Your task to perform on an android device: Show me recent news Image 0: 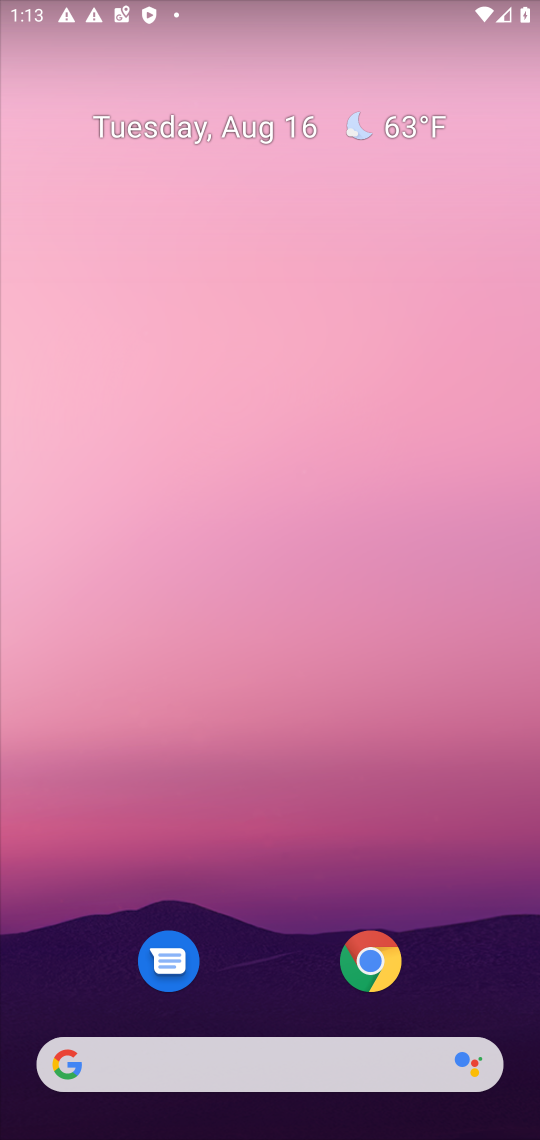
Step 0: drag from (484, 978) to (251, 96)
Your task to perform on an android device: Show me recent news Image 1: 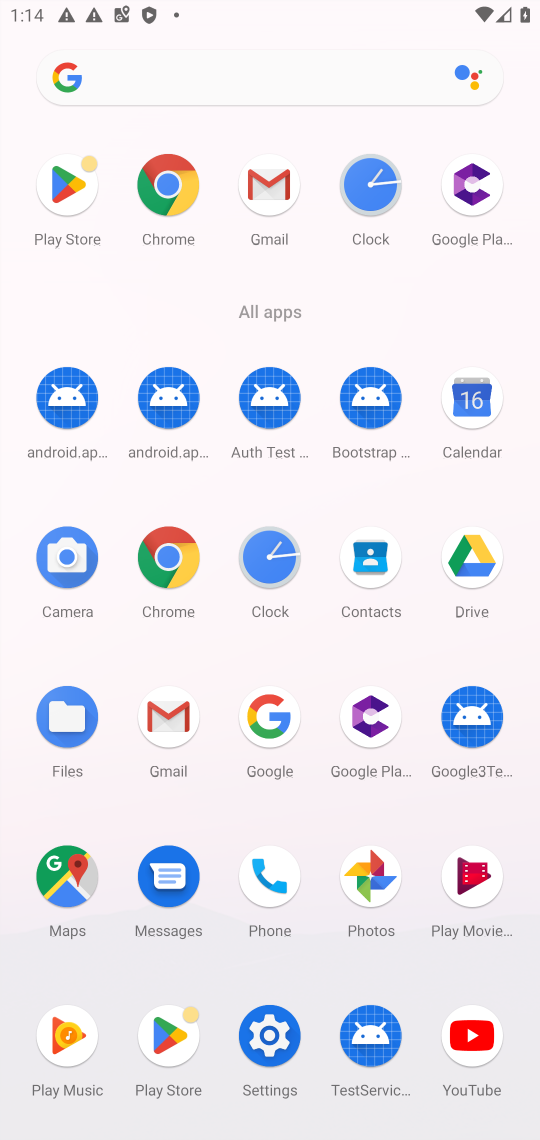
Step 1: click (273, 708)
Your task to perform on an android device: Show me recent news Image 2: 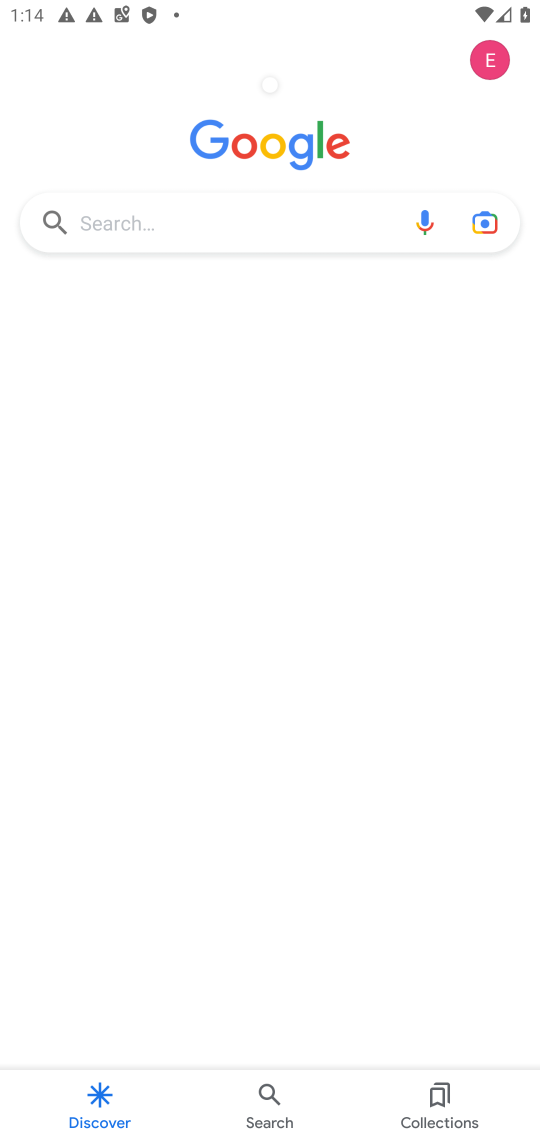
Step 2: click (137, 217)
Your task to perform on an android device: Show me recent news Image 3: 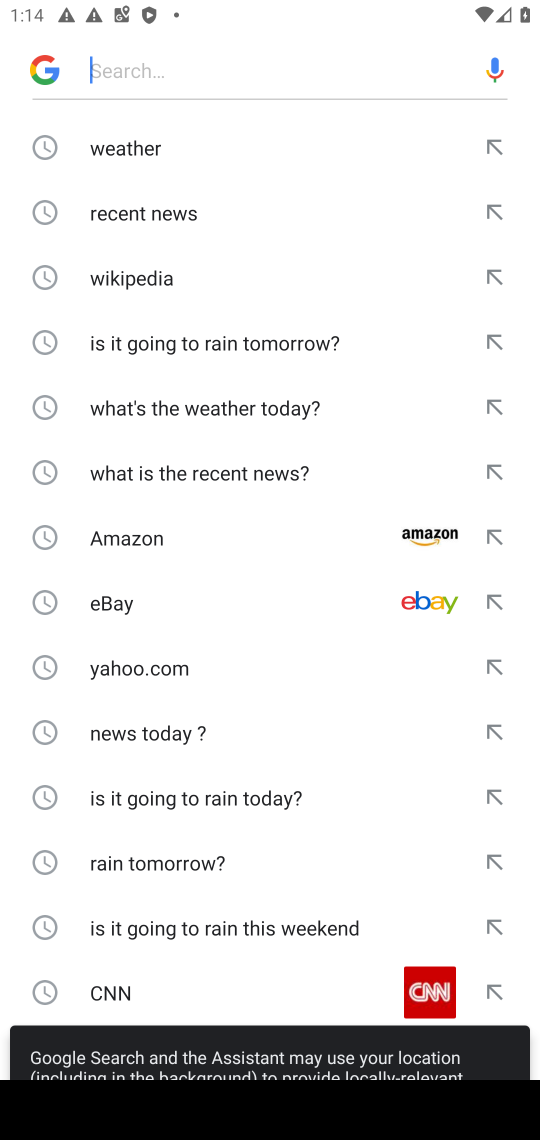
Step 3: click (153, 215)
Your task to perform on an android device: Show me recent news Image 4: 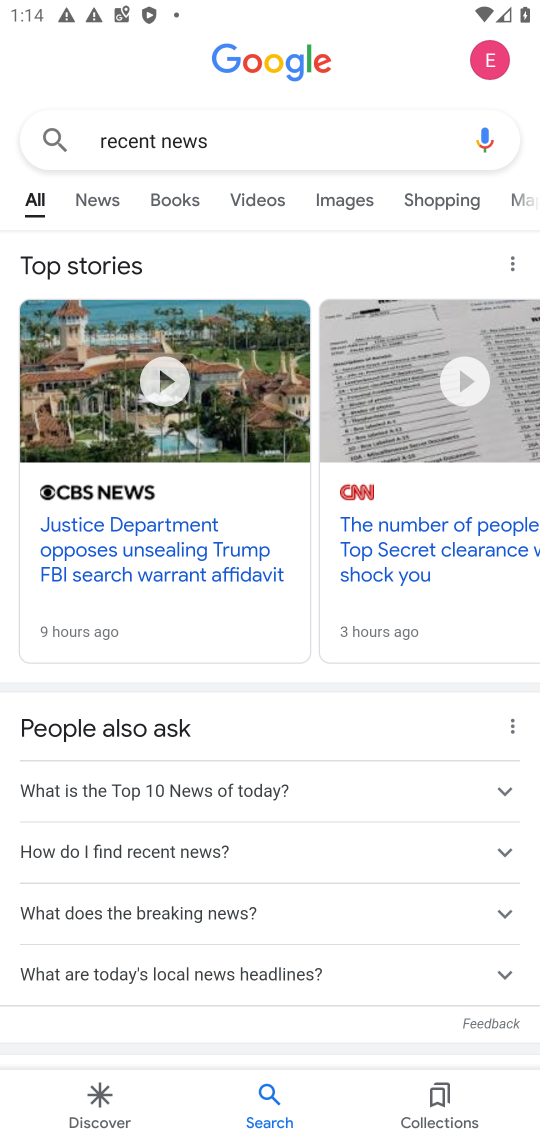
Step 4: task complete